Your task to perform on an android device: Open ESPN.com Image 0: 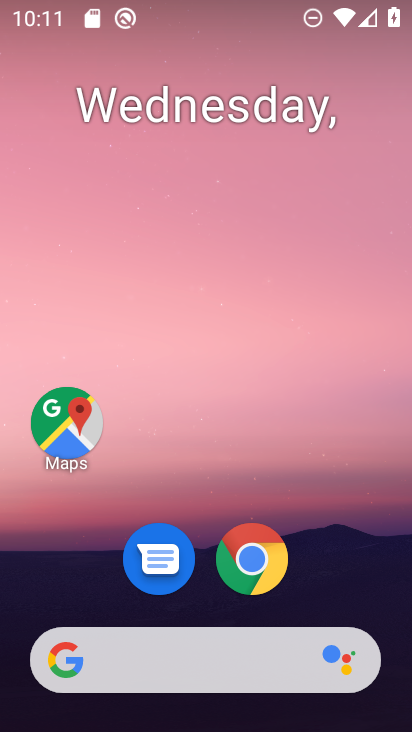
Step 0: drag from (359, 595) to (368, 261)
Your task to perform on an android device: Open ESPN.com Image 1: 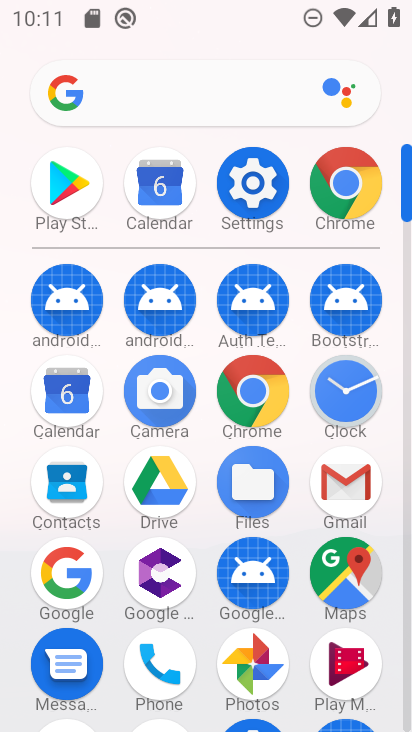
Step 1: click (275, 385)
Your task to perform on an android device: Open ESPN.com Image 2: 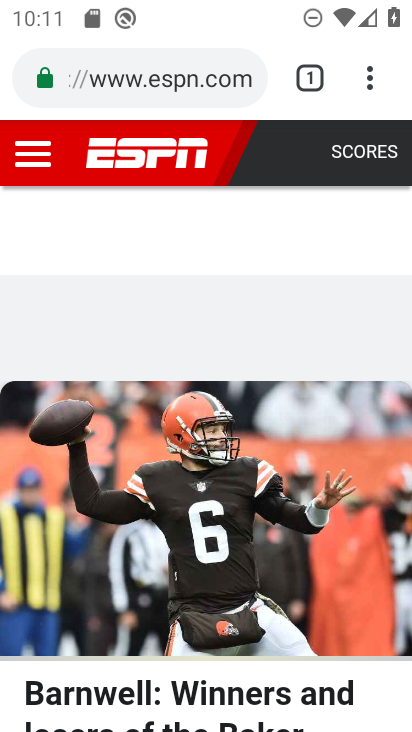
Step 2: task complete